Your task to perform on an android device: Go to location settings Image 0: 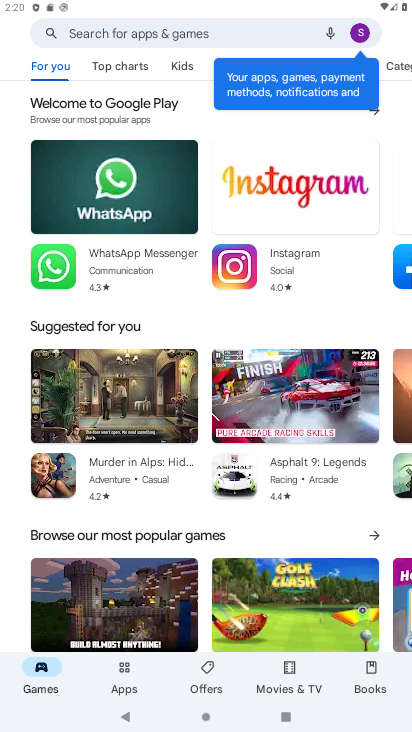
Step 0: press back button
Your task to perform on an android device: Go to location settings Image 1: 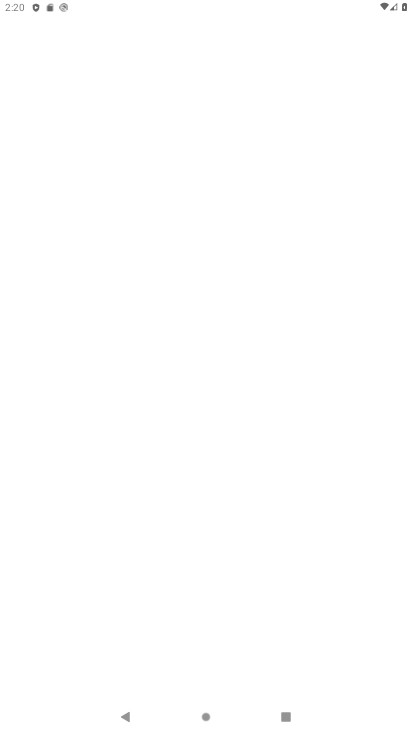
Step 1: press back button
Your task to perform on an android device: Go to location settings Image 2: 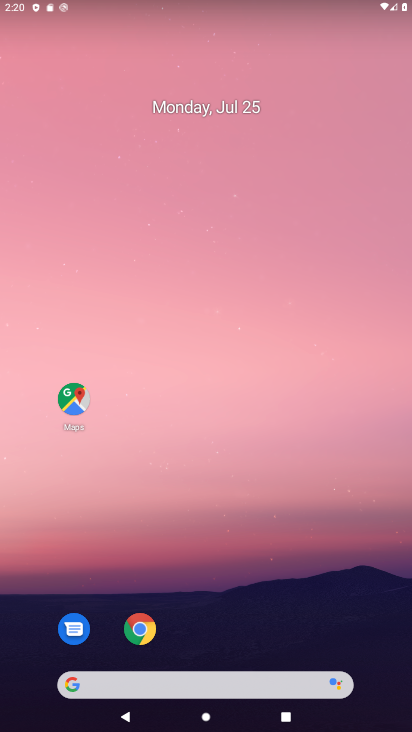
Step 2: click (216, 232)
Your task to perform on an android device: Go to location settings Image 3: 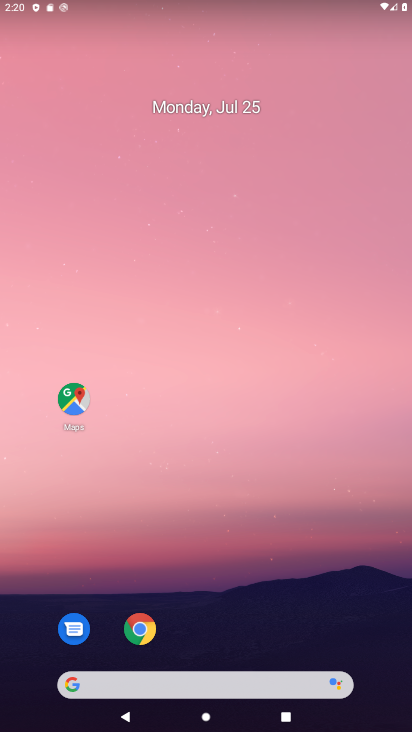
Step 3: click (148, 135)
Your task to perform on an android device: Go to location settings Image 4: 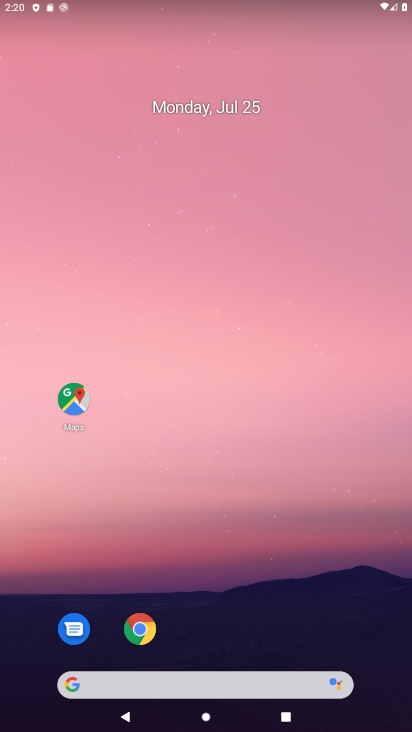
Step 4: drag from (200, 39) to (139, 40)
Your task to perform on an android device: Go to location settings Image 5: 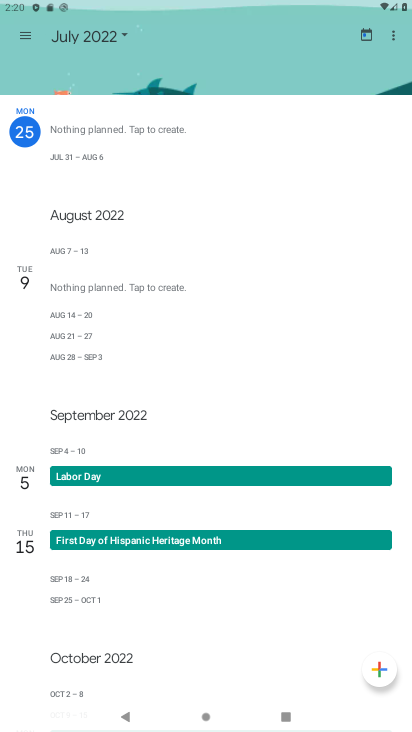
Step 5: press back button
Your task to perform on an android device: Go to location settings Image 6: 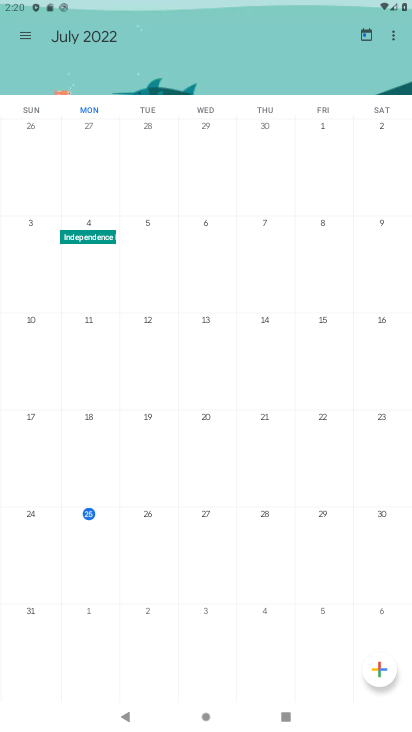
Step 6: press back button
Your task to perform on an android device: Go to location settings Image 7: 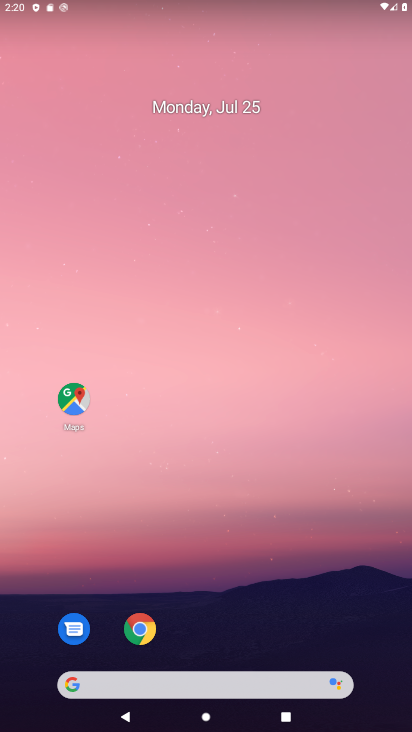
Step 7: drag from (237, 491) to (89, 43)
Your task to perform on an android device: Go to location settings Image 8: 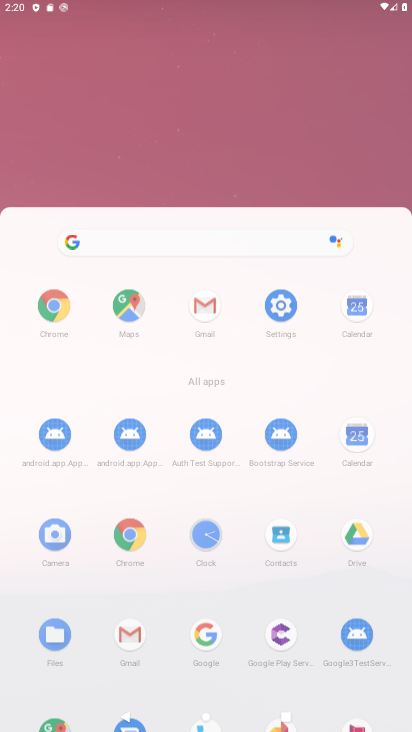
Step 8: drag from (134, 256) to (83, 56)
Your task to perform on an android device: Go to location settings Image 9: 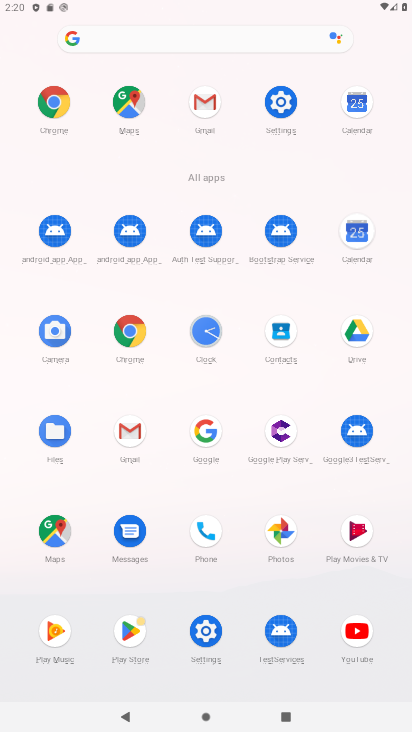
Step 9: drag from (192, 451) to (156, 100)
Your task to perform on an android device: Go to location settings Image 10: 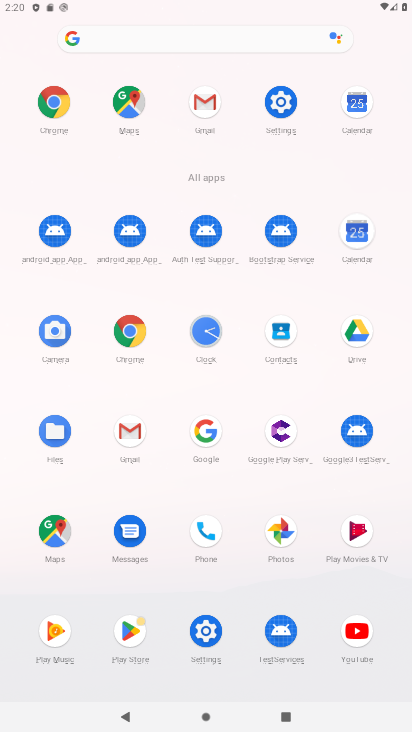
Step 10: click (204, 629)
Your task to perform on an android device: Go to location settings Image 11: 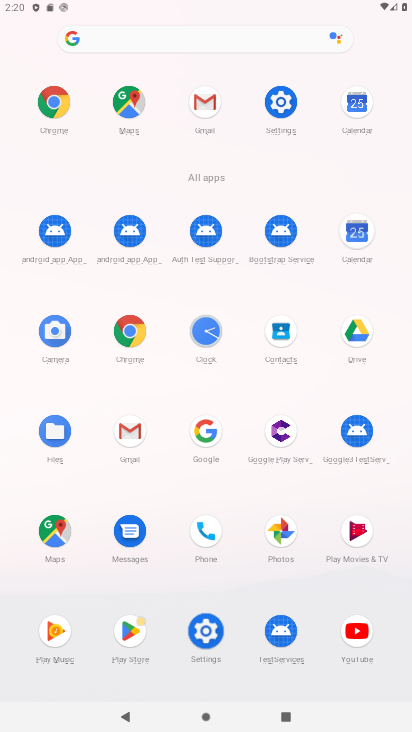
Step 11: click (201, 634)
Your task to perform on an android device: Go to location settings Image 12: 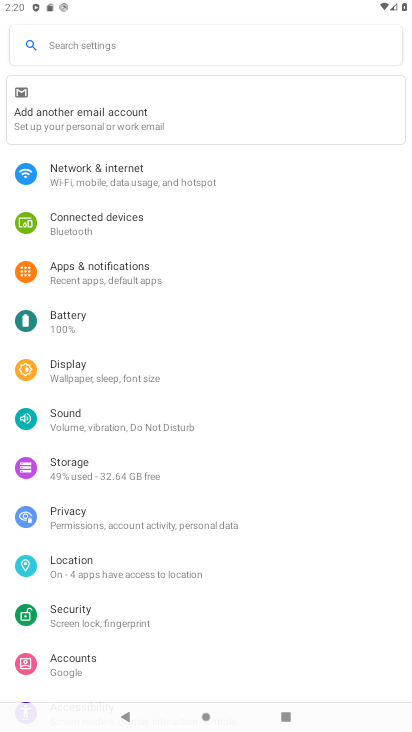
Step 12: click (60, 568)
Your task to perform on an android device: Go to location settings Image 13: 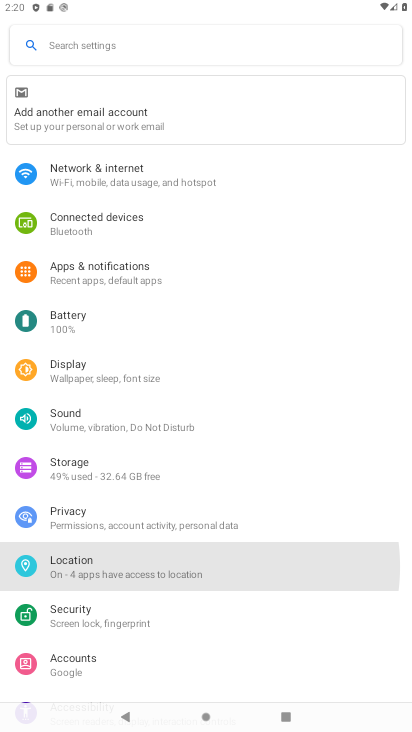
Step 13: click (59, 569)
Your task to perform on an android device: Go to location settings Image 14: 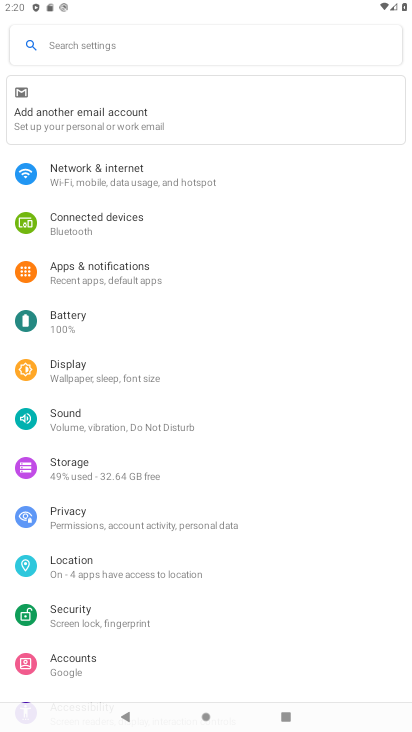
Step 14: click (59, 569)
Your task to perform on an android device: Go to location settings Image 15: 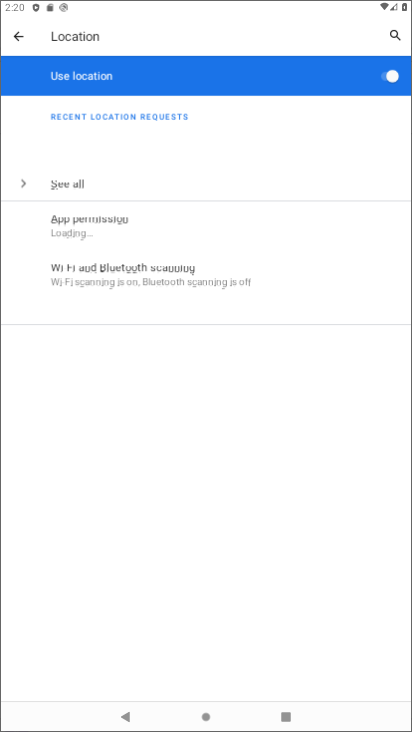
Step 15: click (60, 570)
Your task to perform on an android device: Go to location settings Image 16: 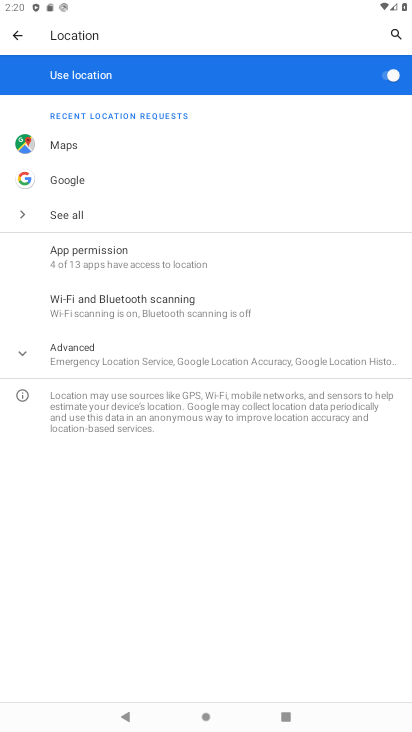
Step 16: task complete